Your task to perform on an android device: Open calendar and show me the fourth week of next month Image 0: 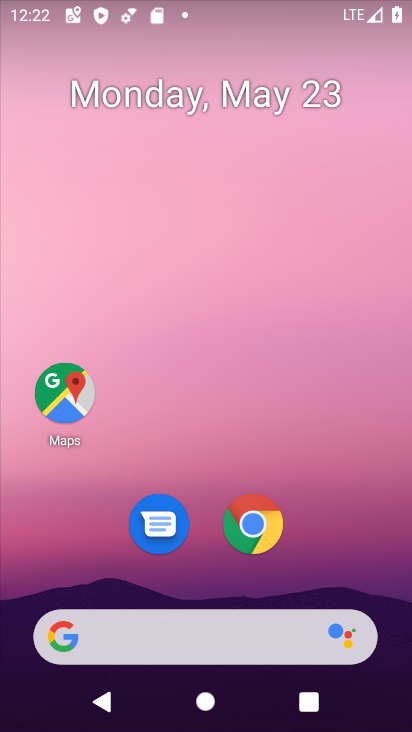
Step 0: drag from (222, 412) to (205, 23)
Your task to perform on an android device: Open calendar and show me the fourth week of next month Image 1: 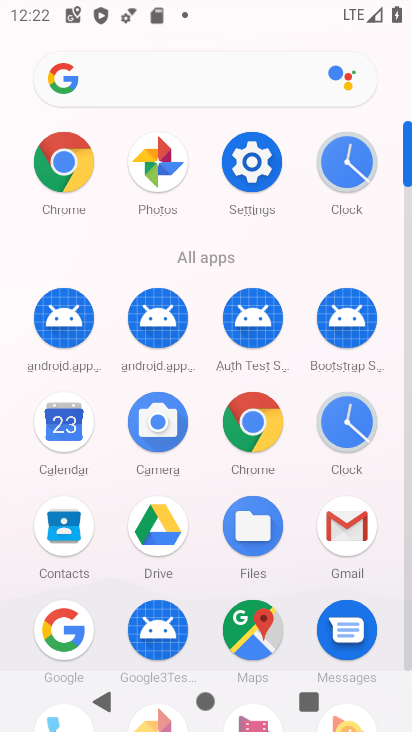
Step 1: click (70, 425)
Your task to perform on an android device: Open calendar and show me the fourth week of next month Image 2: 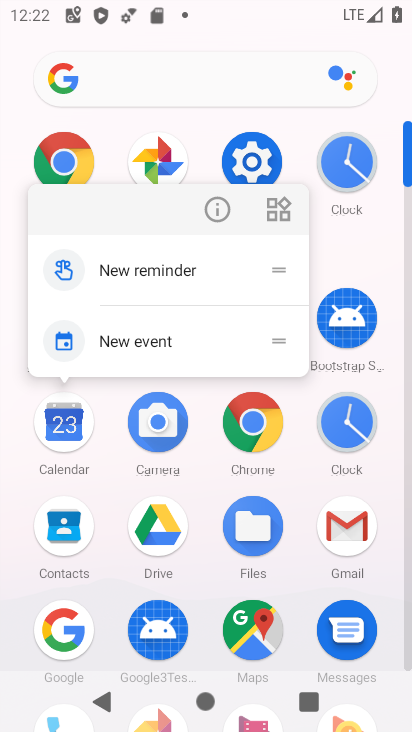
Step 2: click (70, 425)
Your task to perform on an android device: Open calendar and show me the fourth week of next month Image 3: 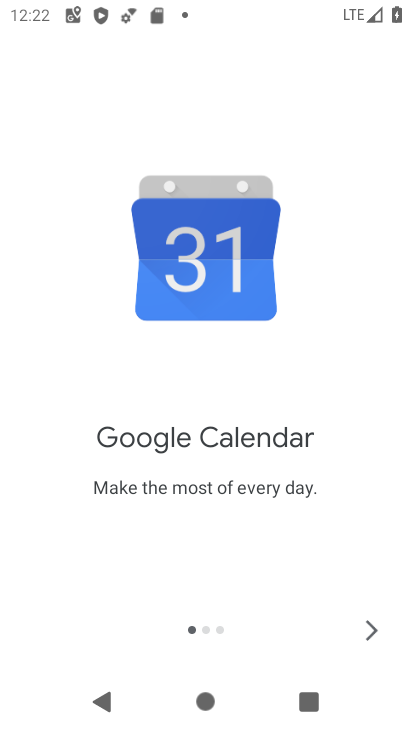
Step 3: click (369, 630)
Your task to perform on an android device: Open calendar and show me the fourth week of next month Image 4: 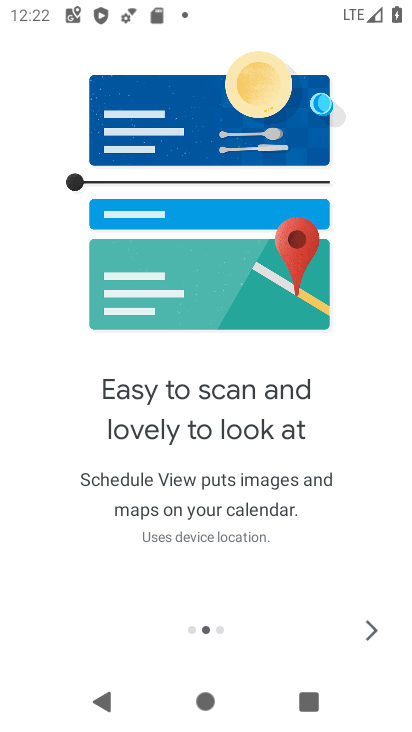
Step 4: click (369, 630)
Your task to perform on an android device: Open calendar and show me the fourth week of next month Image 5: 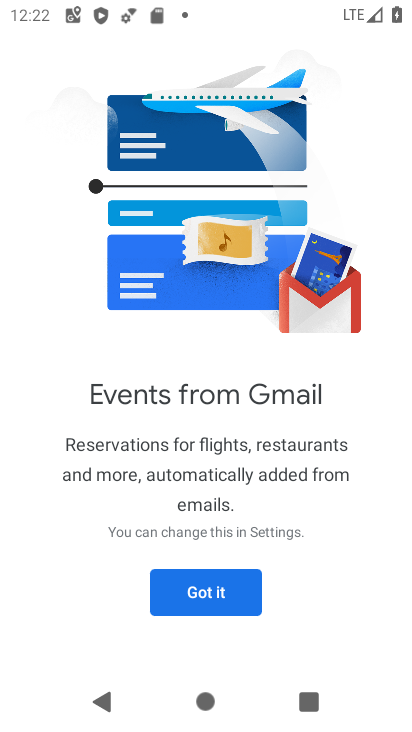
Step 5: click (244, 596)
Your task to perform on an android device: Open calendar and show me the fourth week of next month Image 6: 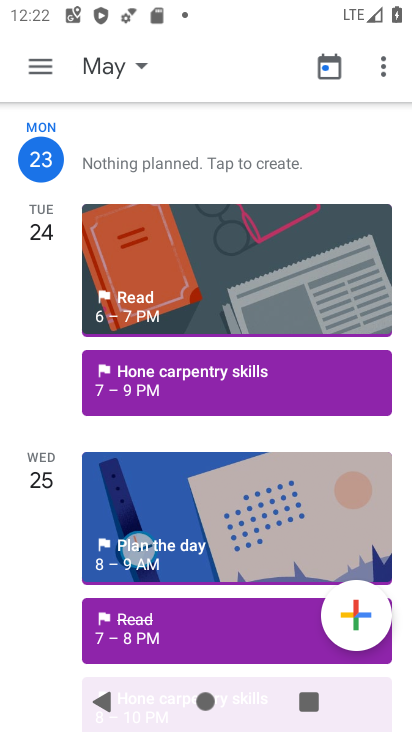
Step 6: click (40, 60)
Your task to perform on an android device: Open calendar and show me the fourth week of next month Image 7: 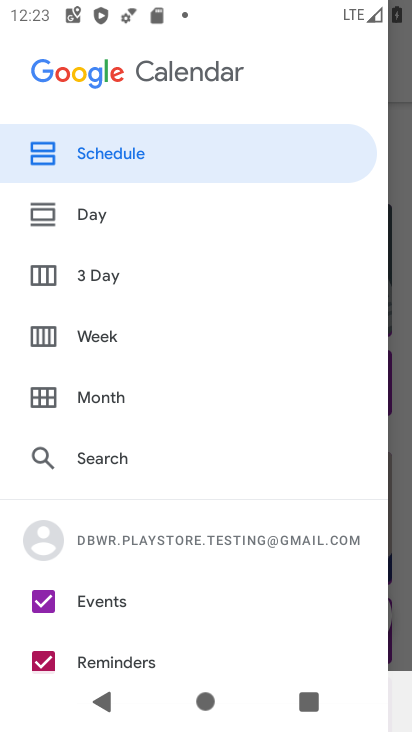
Step 7: click (95, 383)
Your task to perform on an android device: Open calendar and show me the fourth week of next month Image 8: 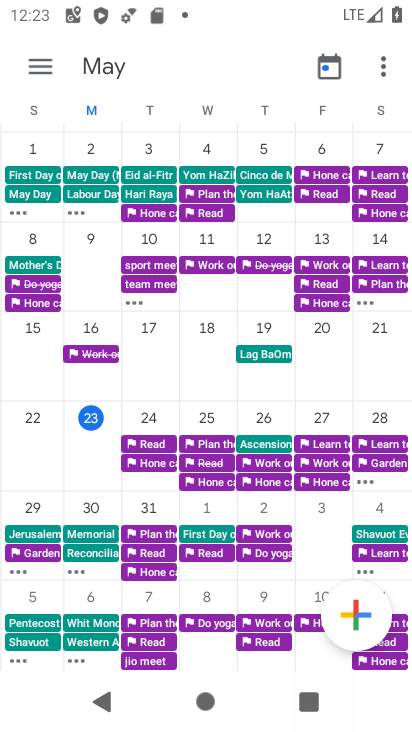
Step 8: drag from (375, 344) to (0, 475)
Your task to perform on an android device: Open calendar and show me the fourth week of next month Image 9: 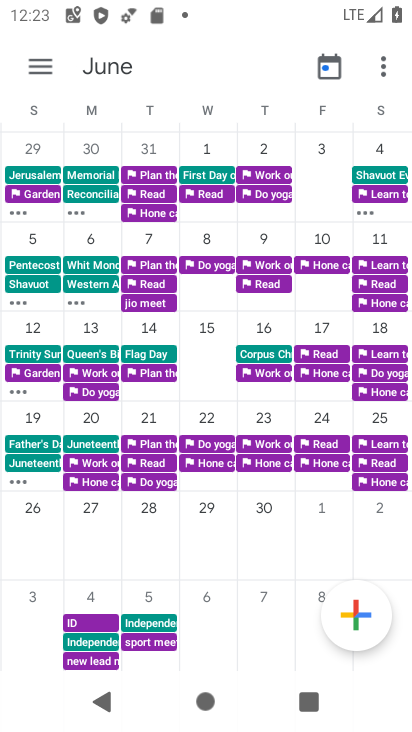
Step 9: click (41, 516)
Your task to perform on an android device: Open calendar and show me the fourth week of next month Image 10: 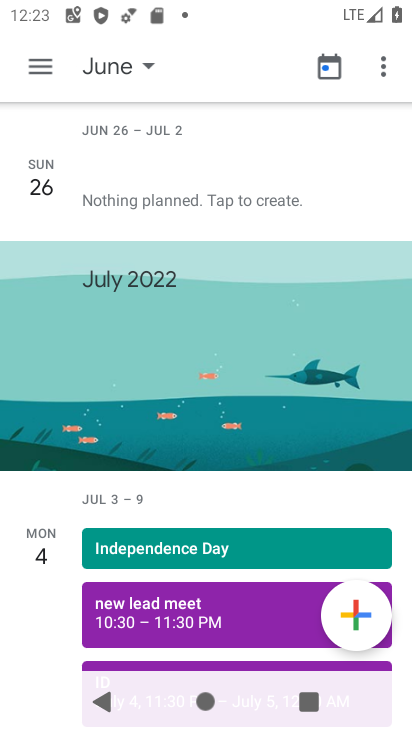
Step 10: click (45, 64)
Your task to perform on an android device: Open calendar and show me the fourth week of next month Image 11: 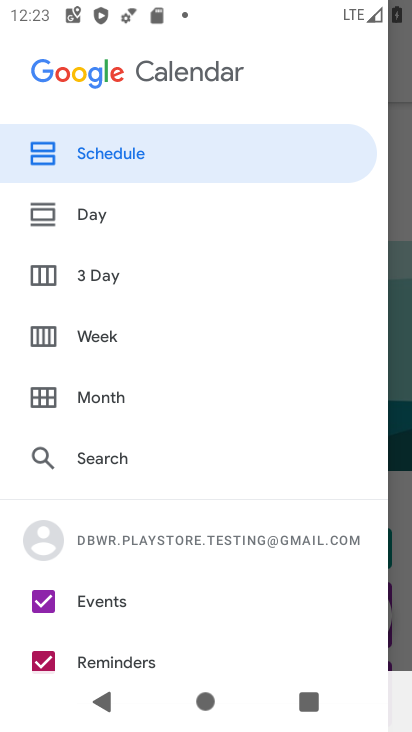
Step 11: click (71, 334)
Your task to perform on an android device: Open calendar and show me the fourth week of next month Image 12: 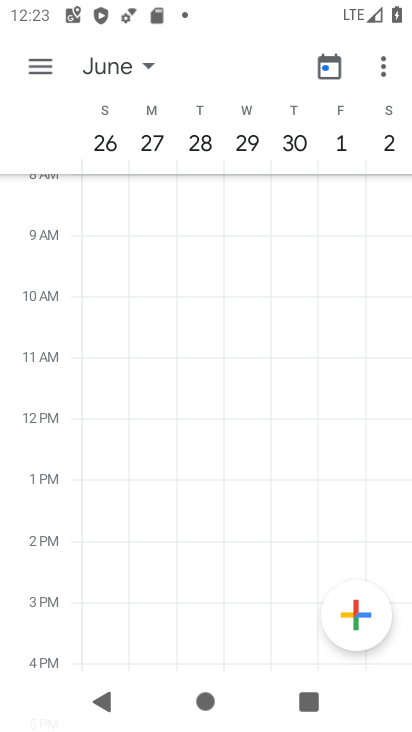
Step 12: task complete